Your task to perform on an android device: How do I get to the nearest Verizon Store? Image 0: 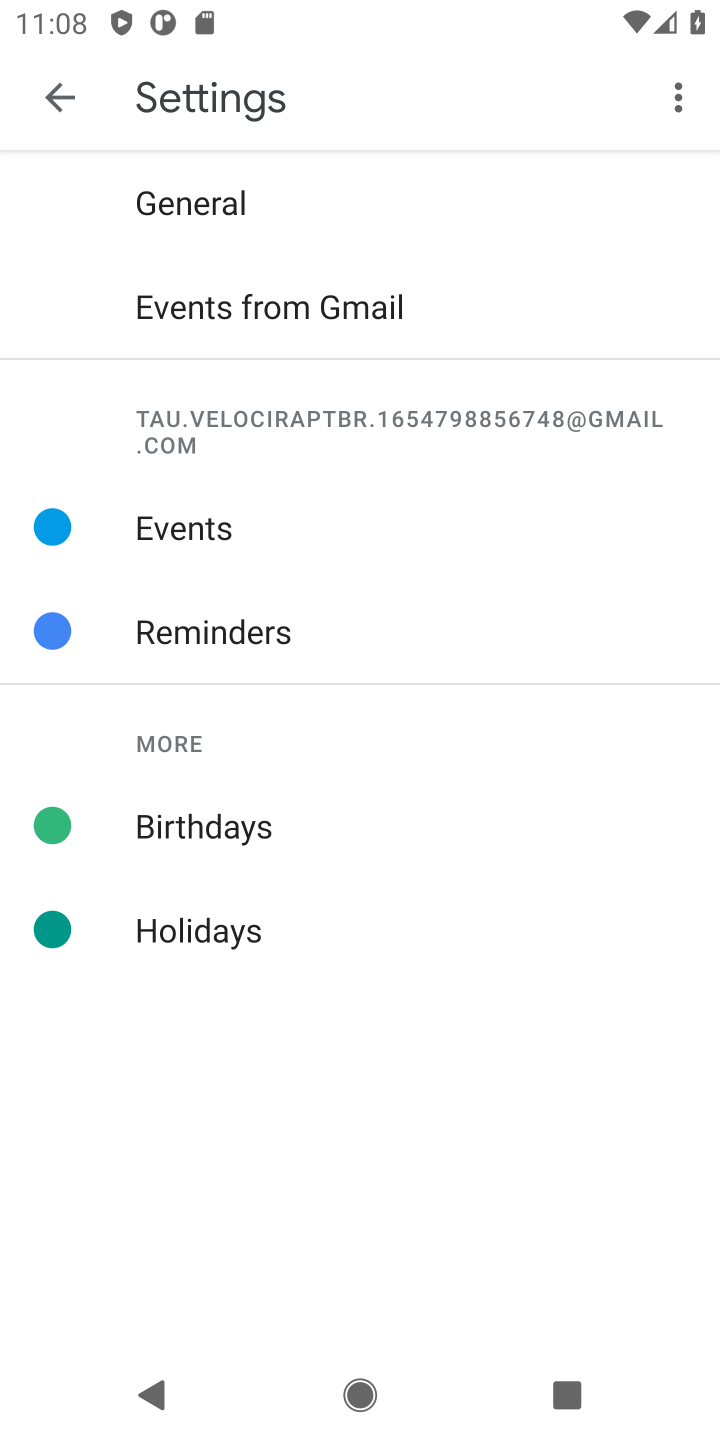
Step 0: press home button
Your task to perform on an android device: How do I get to the nearest Verizon Store? Image 1: 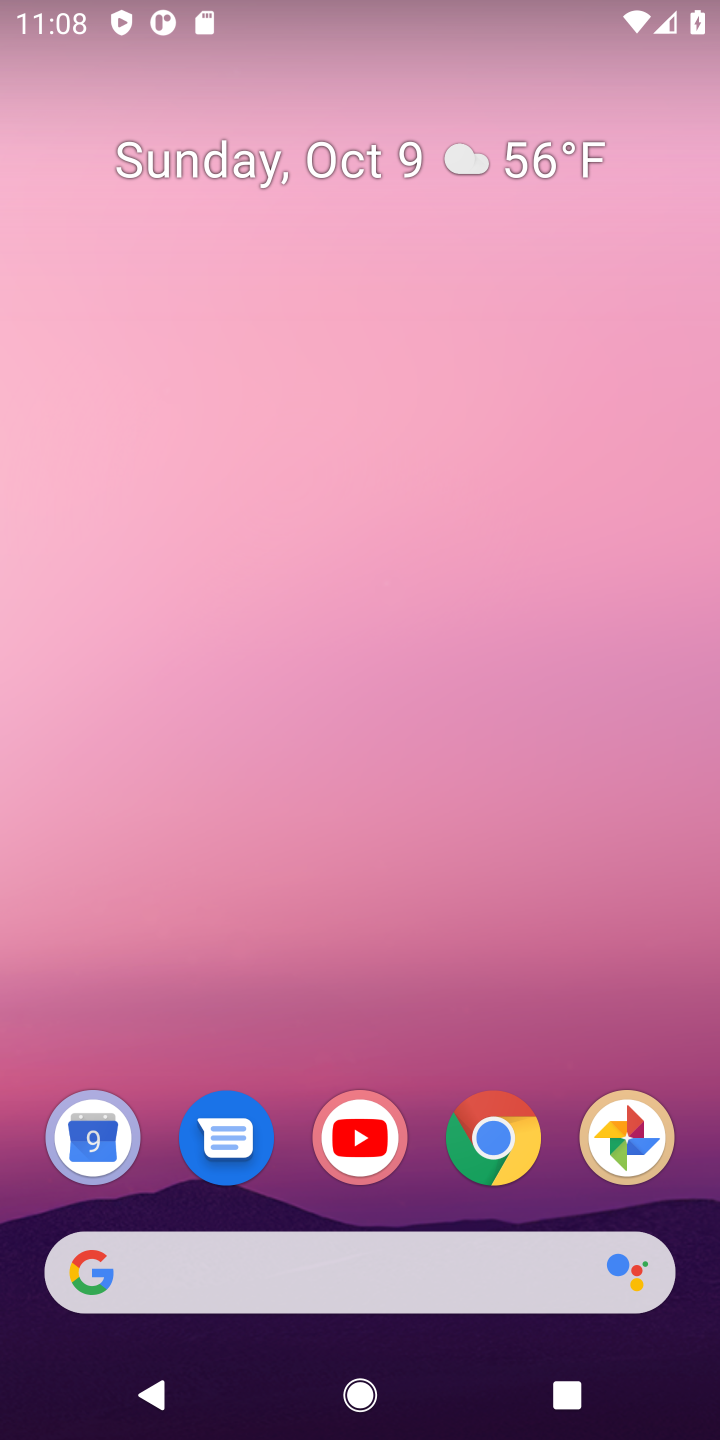
Step 1: click (498, 1140)
Your task to perform on an android device: How do I get to the nearest Verizon Store? Image 2: 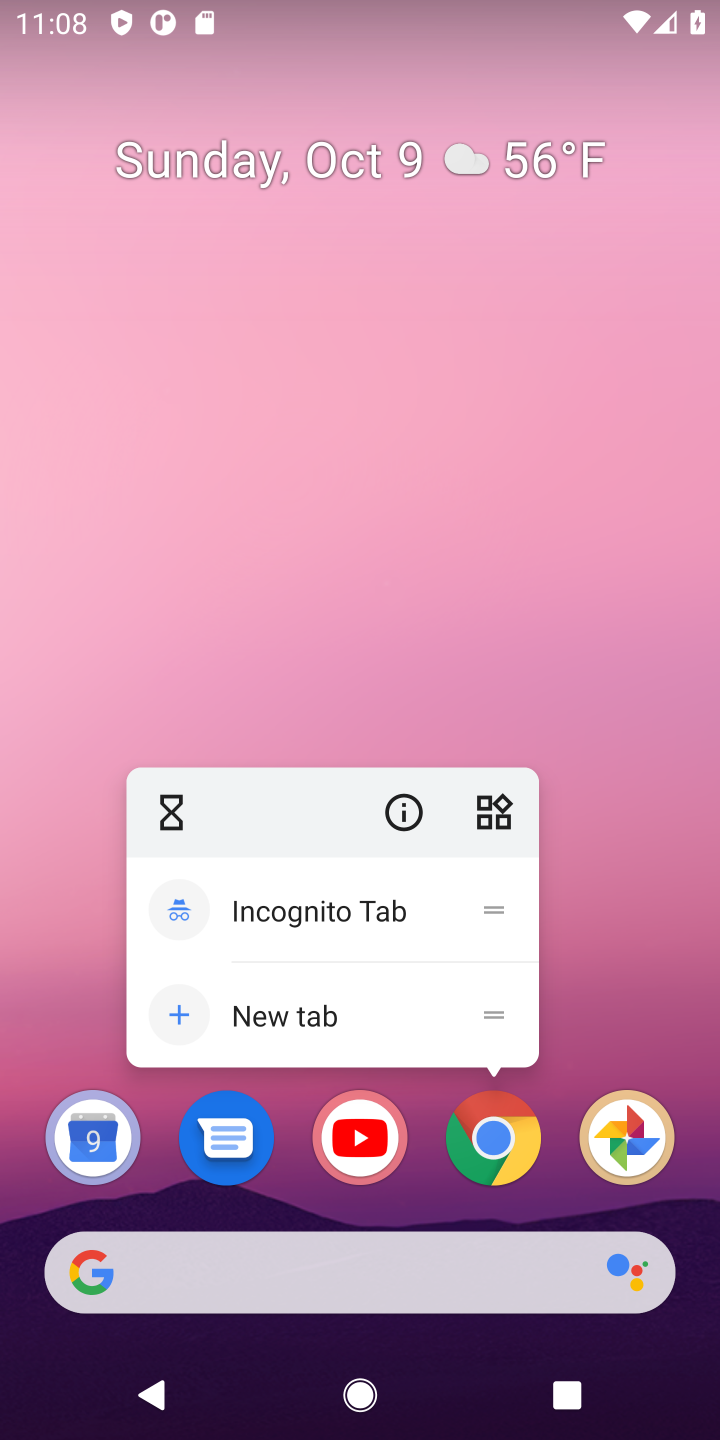
Step 2: click (498, 1140)
Your task to perform on an android device: How do I get to the nearest Verizon Store? Image 3: 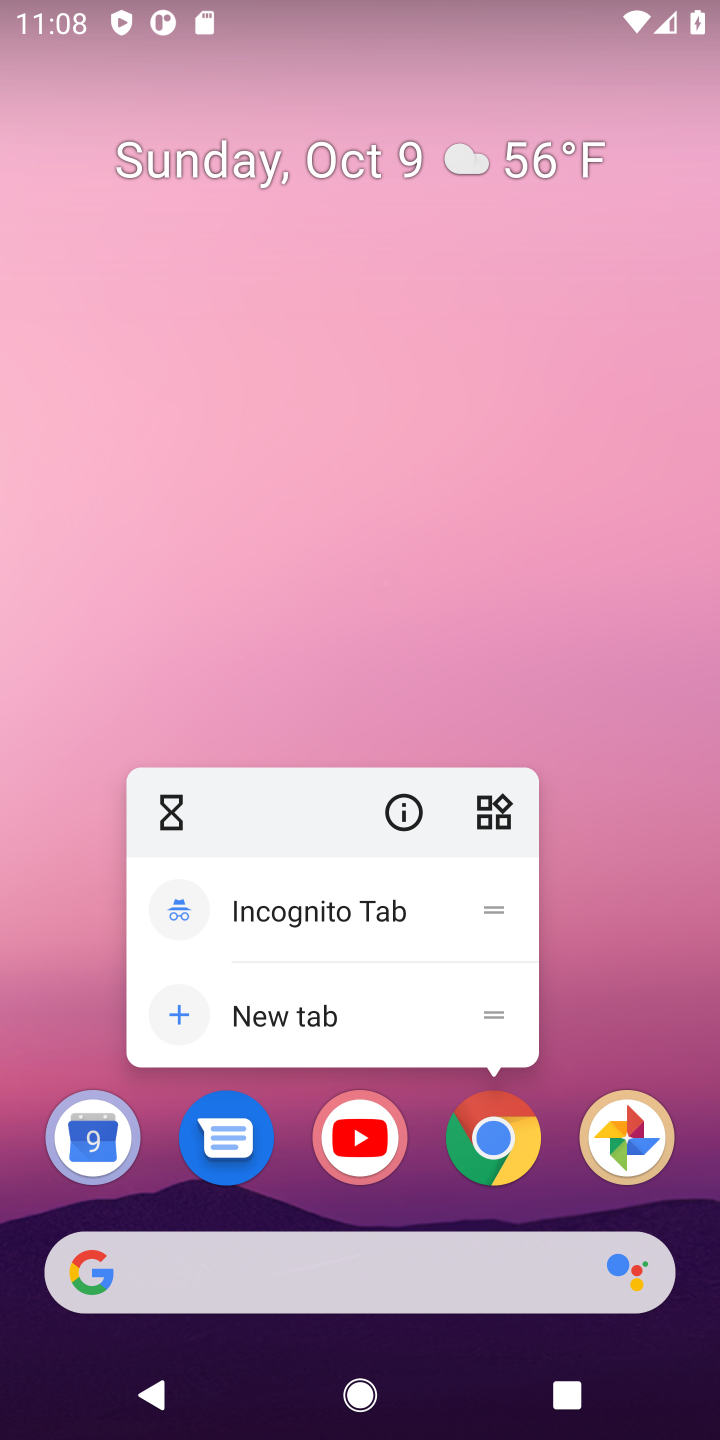
Step 3: click (498, 1140)
Your task to perform on an android device: How do I get to the nearest Verizon Store? Image 4: 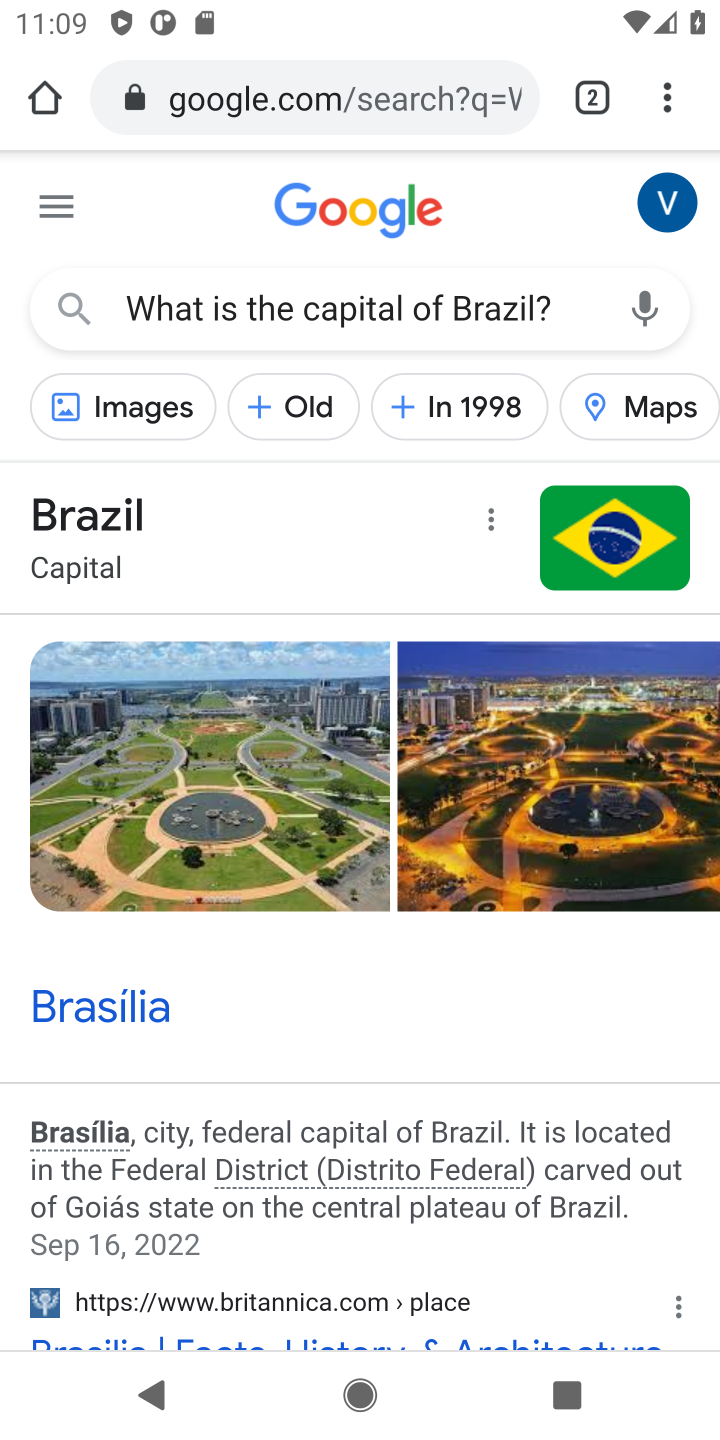
Step 4: click (300, 99)
Your task to perform on an android device: How do I get to the nearest Verizon Store? Image 5: 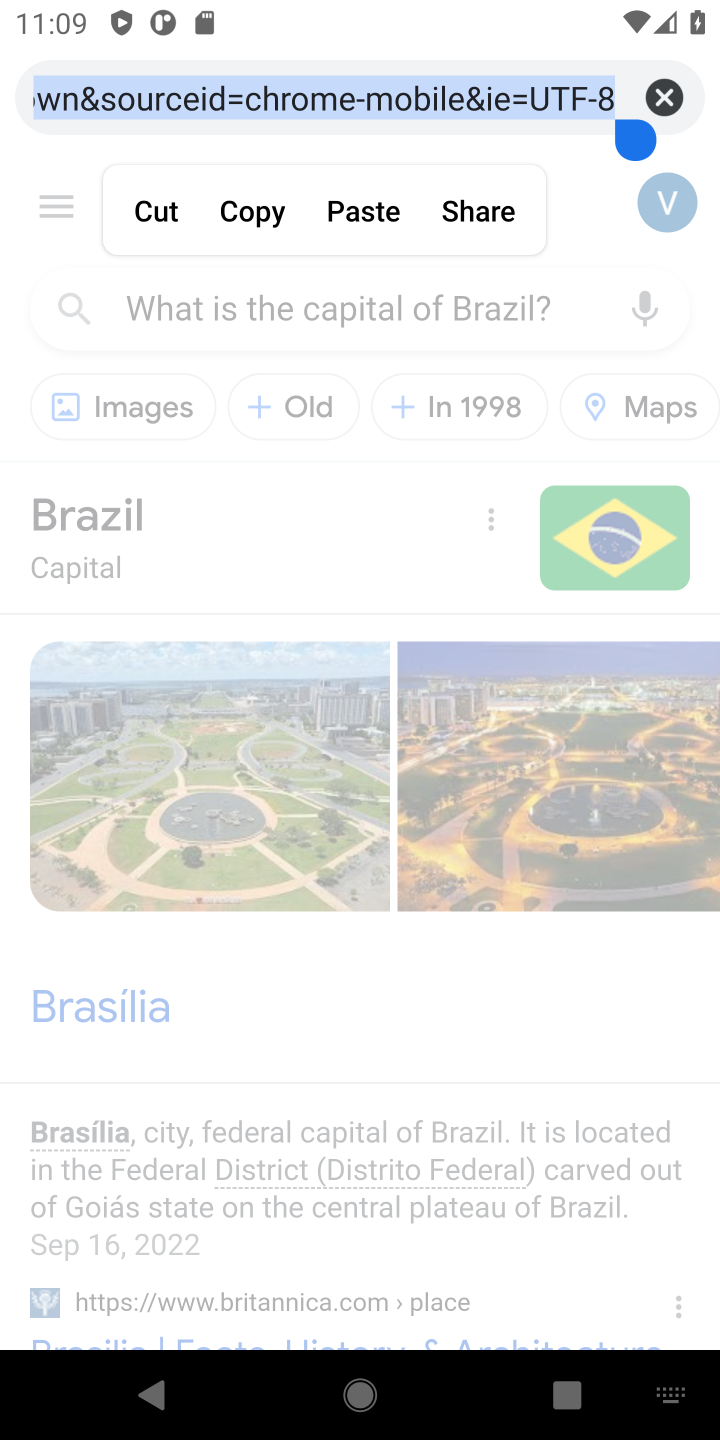
Step 5: click (662, 110)
Your task to perform on an android device: How do I get to the nearest Verizon Store? Image 6: 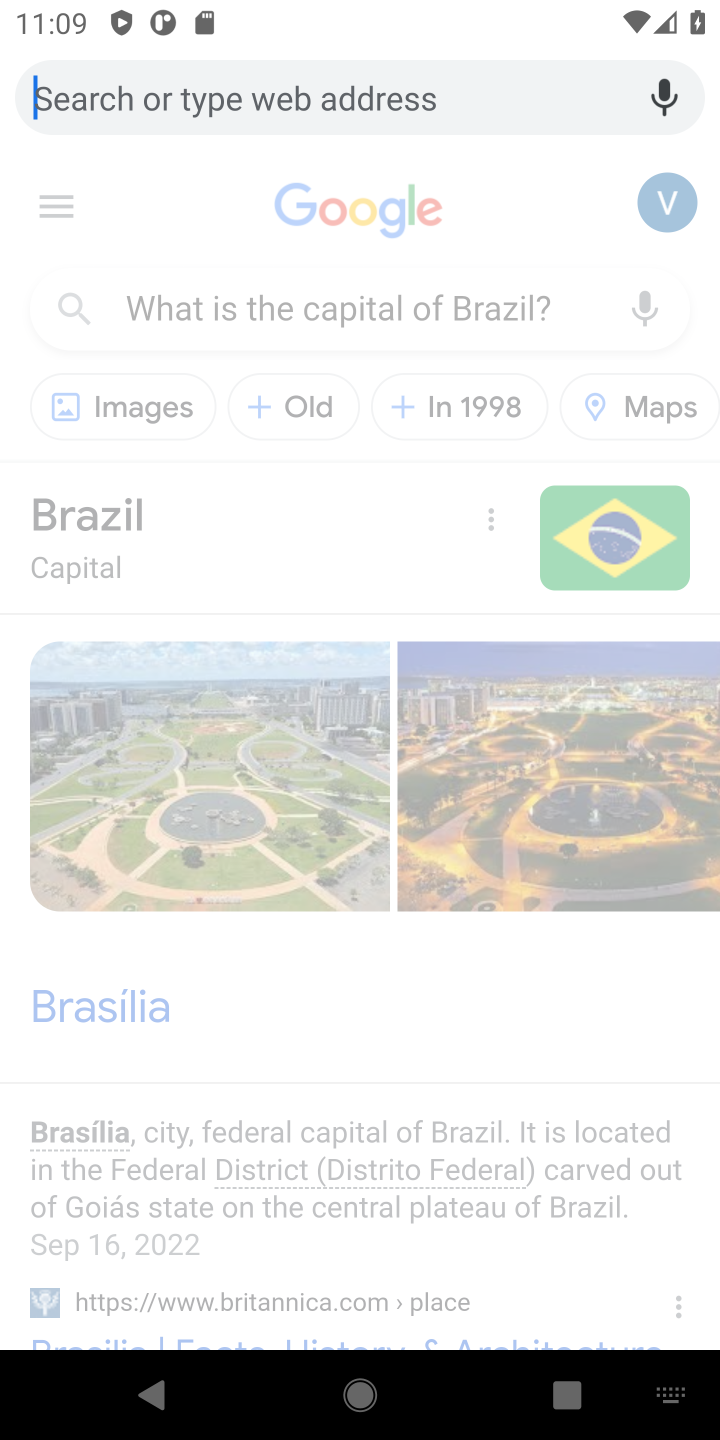
Step 6: type "How do I get to the nearest Verizon Store?"
Your task to perform on an android device: How do I get to the nearest Verizon Store? Image 7: 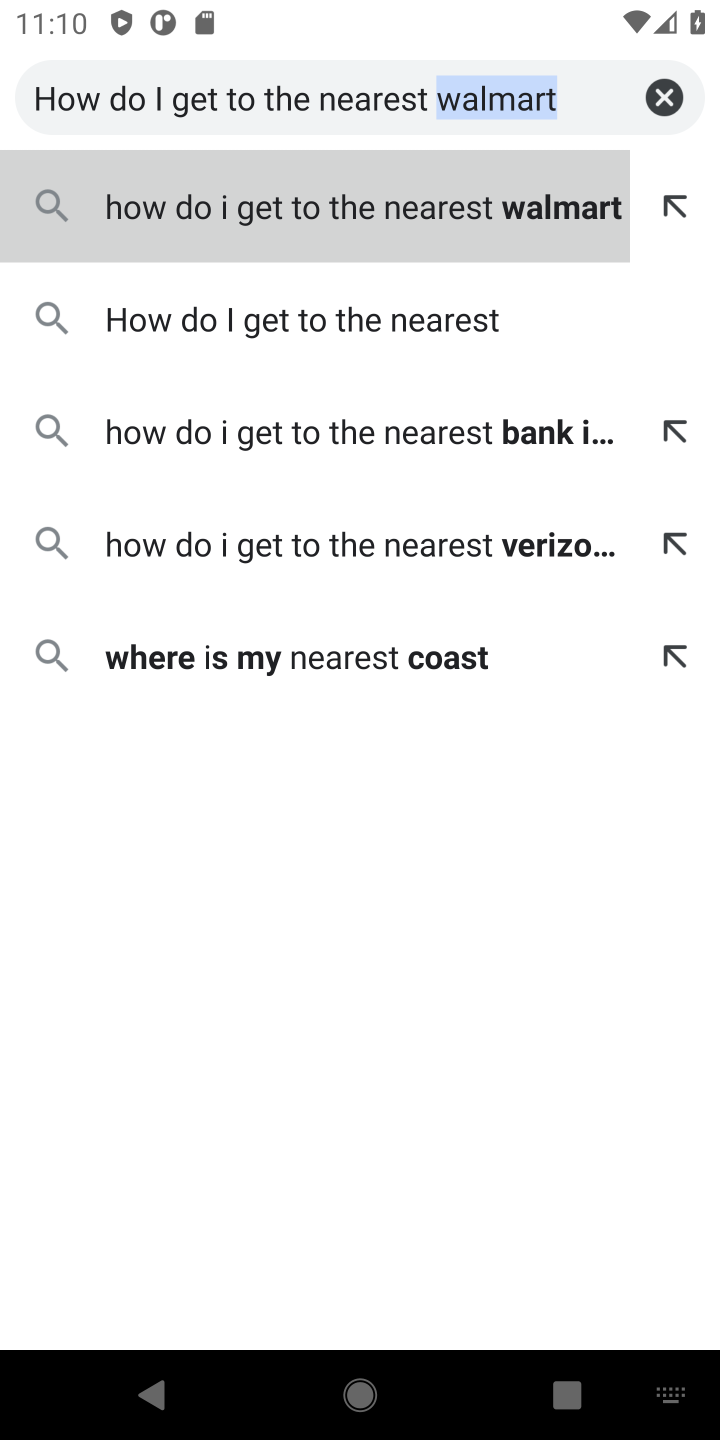
Step 7: click (241, 208)
Your task to perform on an android device: How do I get to the nearest Verizon Store? Image 8: 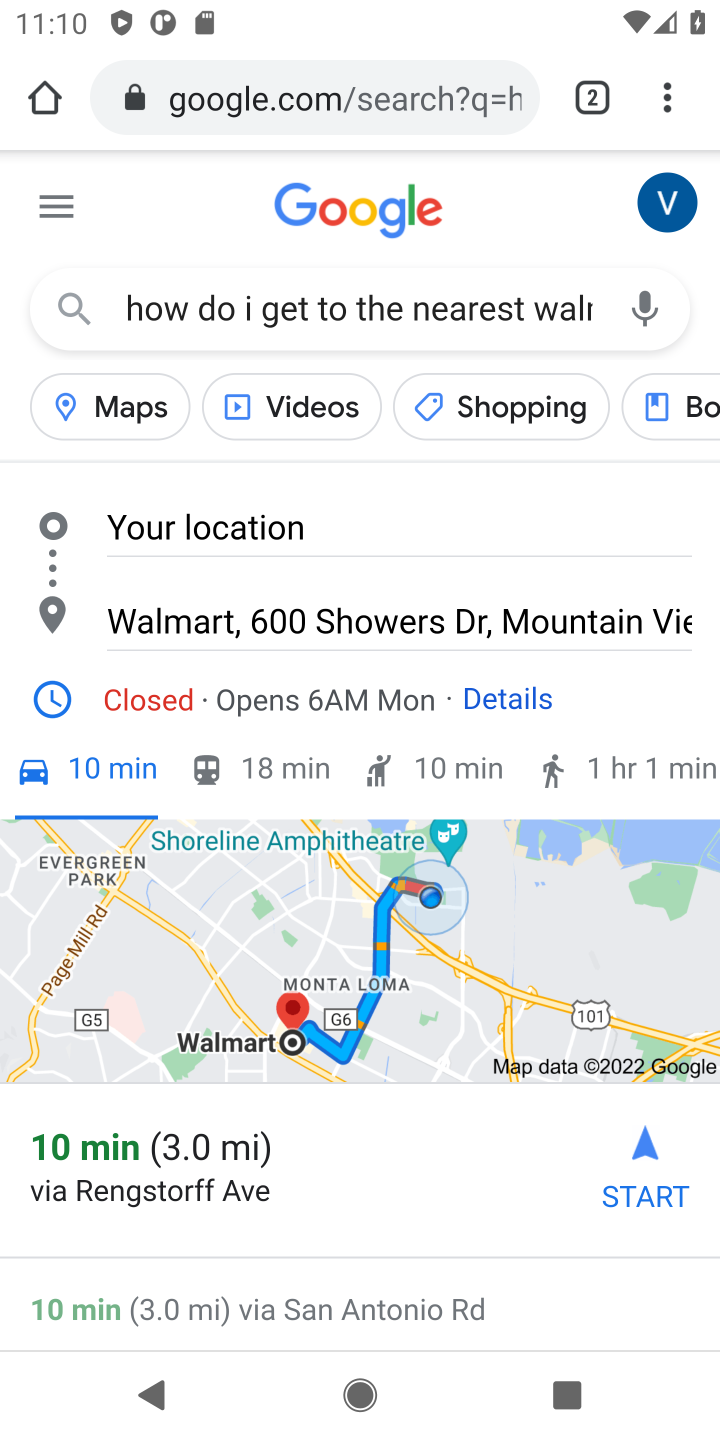
Step 8: task complete